Your task to perform on an android device: toggle pop-ups in chrome Image 0: 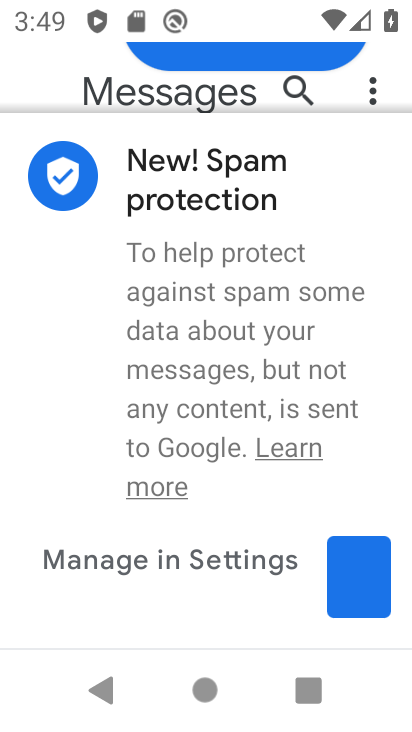
Step 0: press home button
Your task to perform on an android device: toggle pop-ups in chrome Image 1: 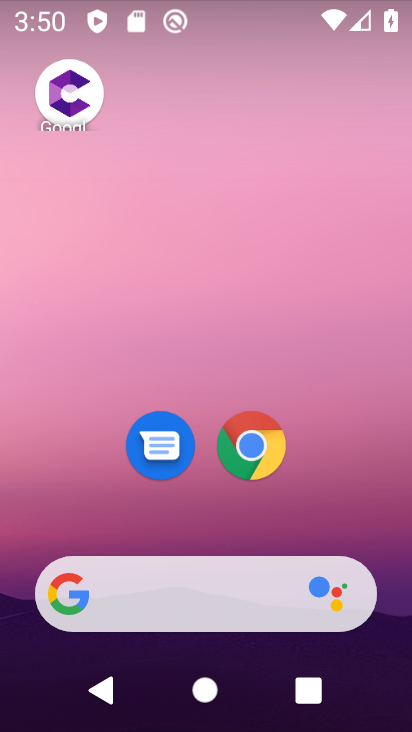
Step 1: click (245, 434)
Your task to perform on an android device: toggle pop-ups in chrome Image 2: 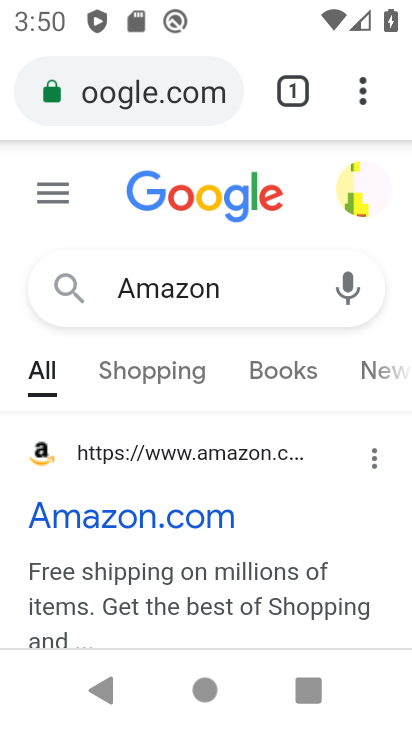
Step 2: click (363, 100)
Your task to perform on an android device: toggle pop-ups in chrome Image 3: 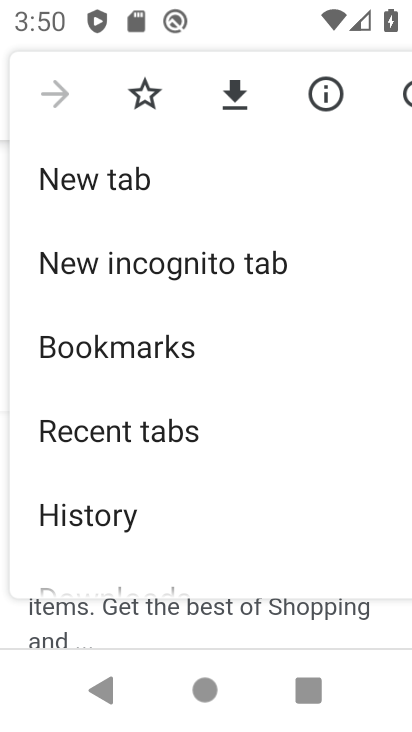
Step 3: drag from (177, 515) to (183, 229)
Your task to perform on an android device: toggle pop-ups in chrome Image 4: 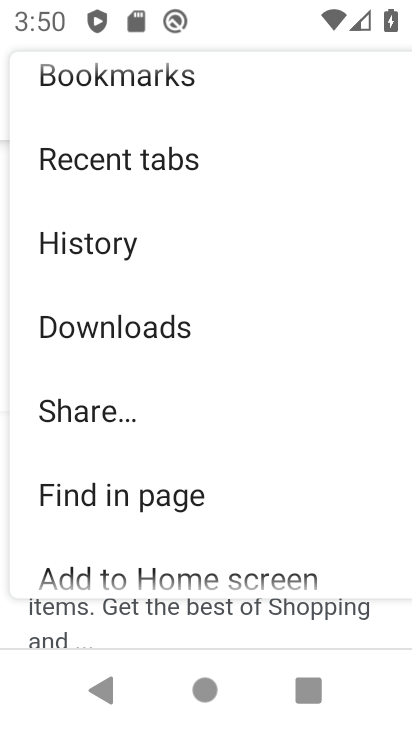
Step 4: drag from (133, 536) to (162, 214)
Your task to perform on an android device: toggle pop-ups in chrome Image 5: 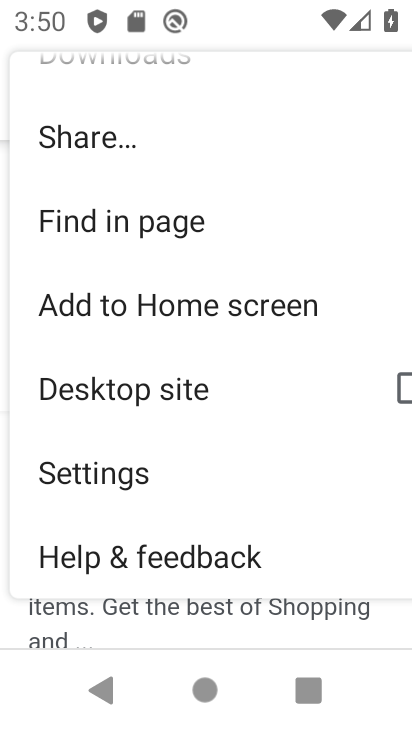
Step 5: click (100, 475)
Your task to perform on an android device: toggle pop-ups in chrome Image 6: 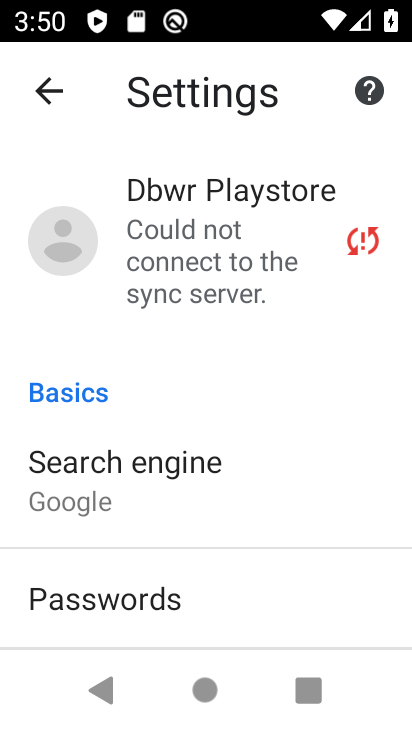
Step 6: drag from (112, 608) to (112, 253)
Your task to perform on an android device: toggle pop-ups in chrome Image 7: 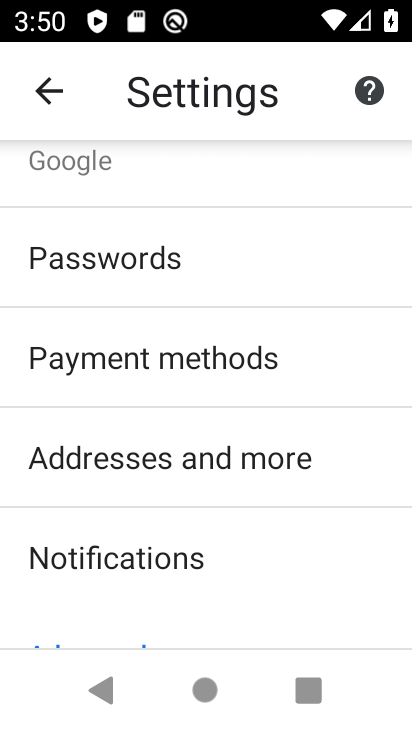
Step 7: drag from (141, 603) to (148, 163)
Your task to perform on an android device: toggle pop-ups in chrome Image 8: 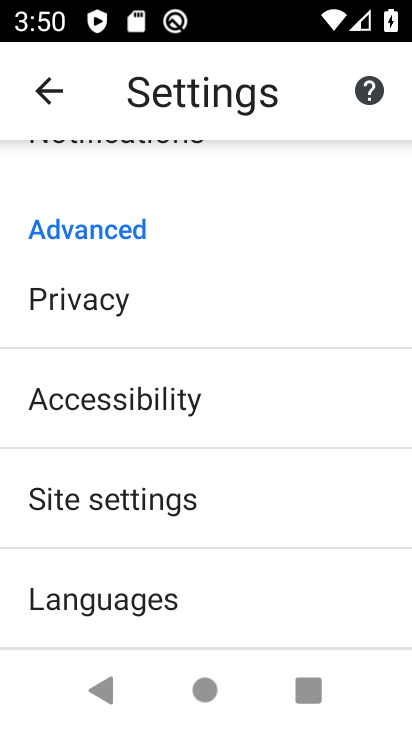
Step 8: drag from (140, 566) to (142, 353)
Your task to perform on an android device: toggle pop-ups in chrome Image 9: 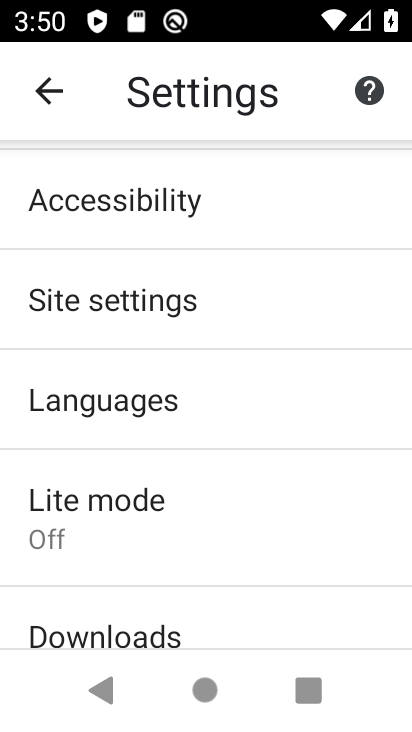
Step 9: click (106, 302)
Your task to perform on an android device: toggle pop-ups in chrome Image 10: 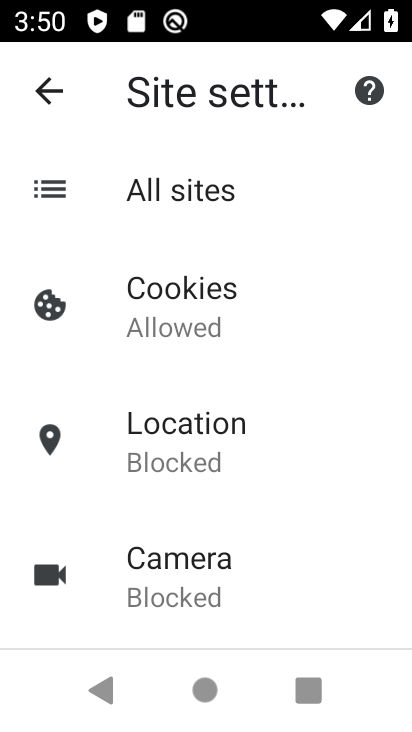
Step 10: drag from (158, 617) to (182, 169)
Your task to perform on an android device: toggle pop-ups in chrome Image 11: 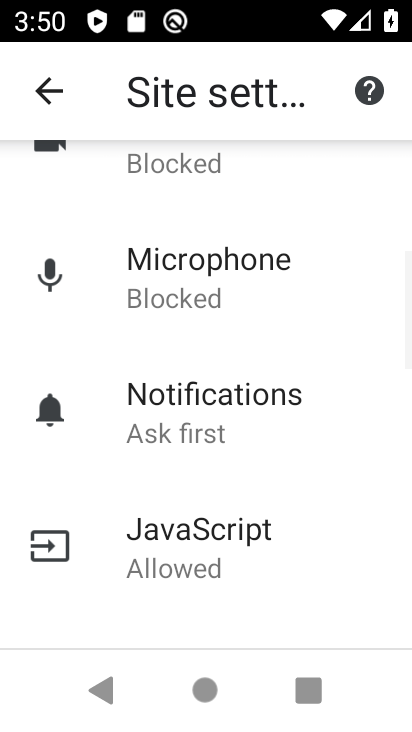
Step 11: drag from (186, 517) to (191, 253)
Your task to perform on an android device: toggle pop-ups in chrome Image 12: 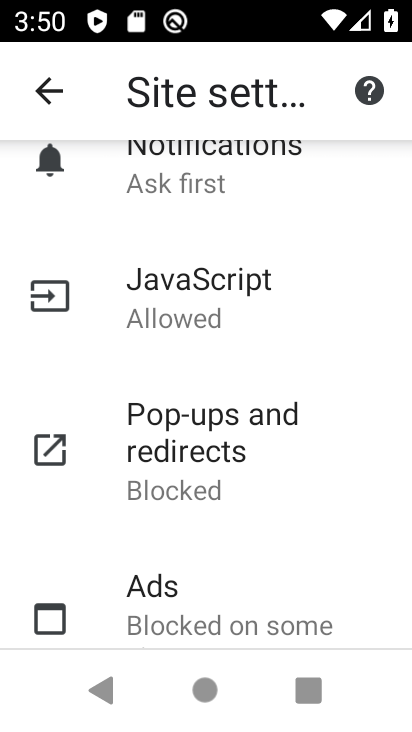
Step 12: click (194, 442)
Your task to perform on an android device: toggle pop-ups in chrome Image 13: 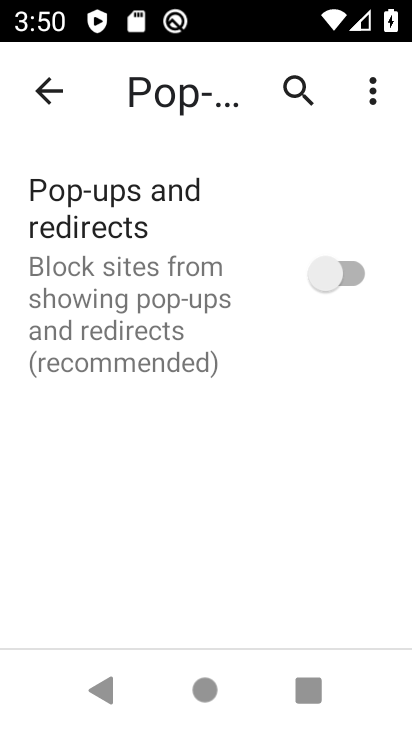
Step 13: click (347, 270)
Your task to perform on an android device: toggle pop-ups in chrome Image 14: 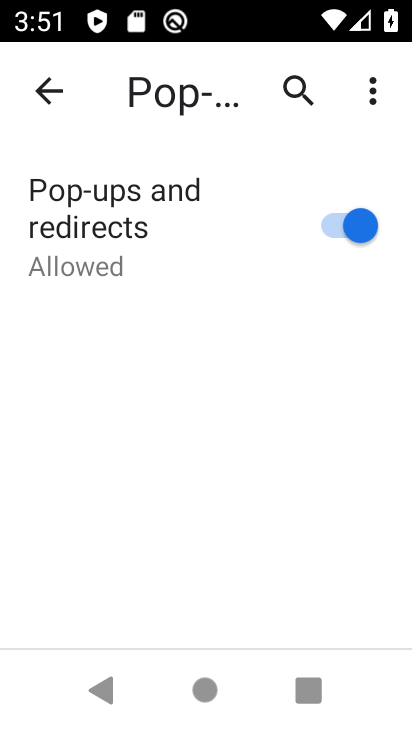
Step 14: task complete